Your task to perform on an android device: Search for the best gaming mouses on Amazon. Image 0: 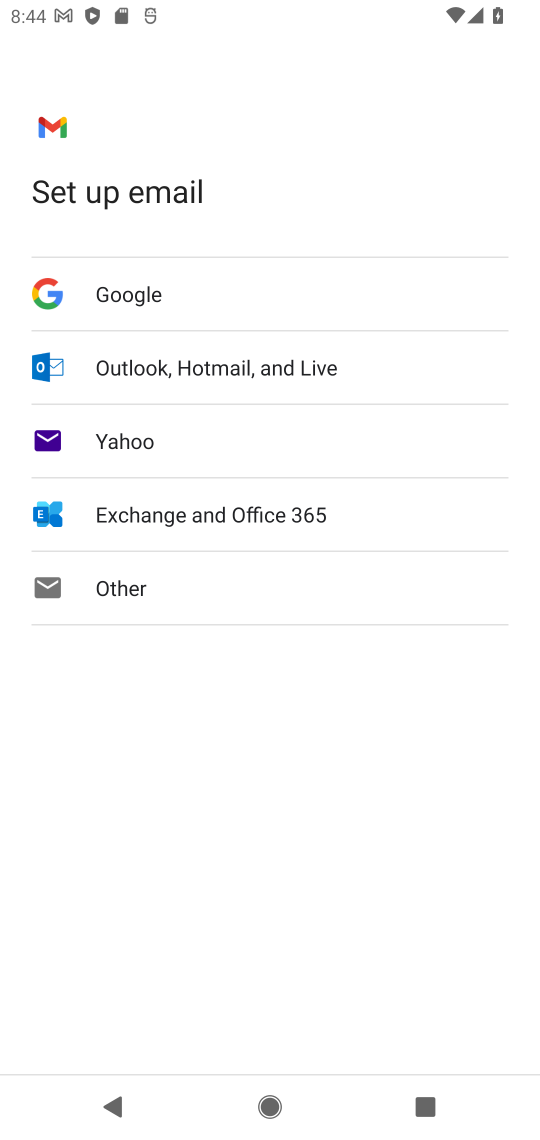
Step 0: press home button
Your task to perform on an android device: Search for the best gaming mouses on Amazon. Image 1: 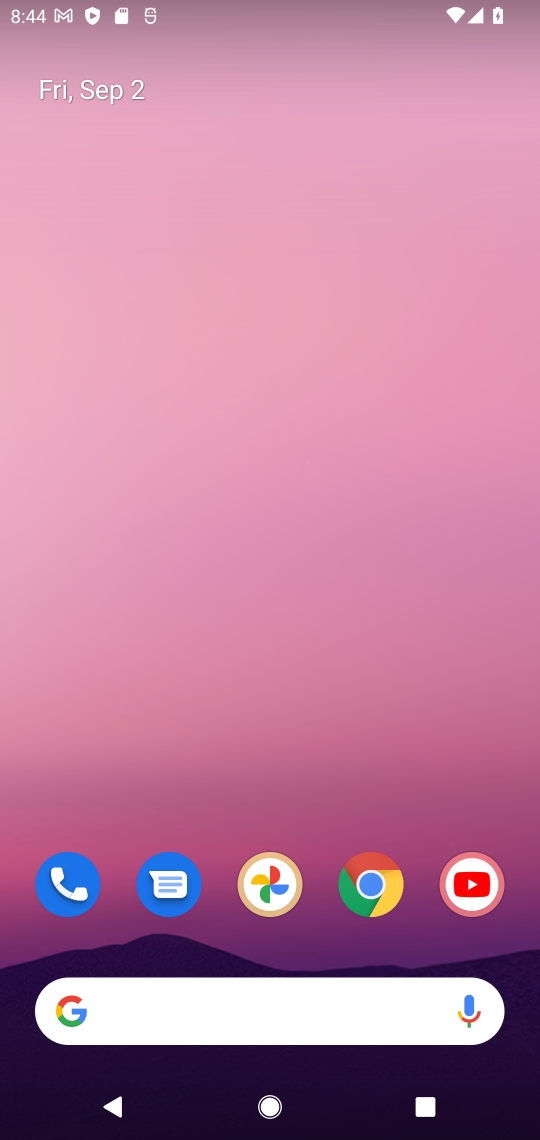
Step 1: click (367, 889)
Your task to perform on an android device: Search for the best gaming mouses on Amazon. Image 2: 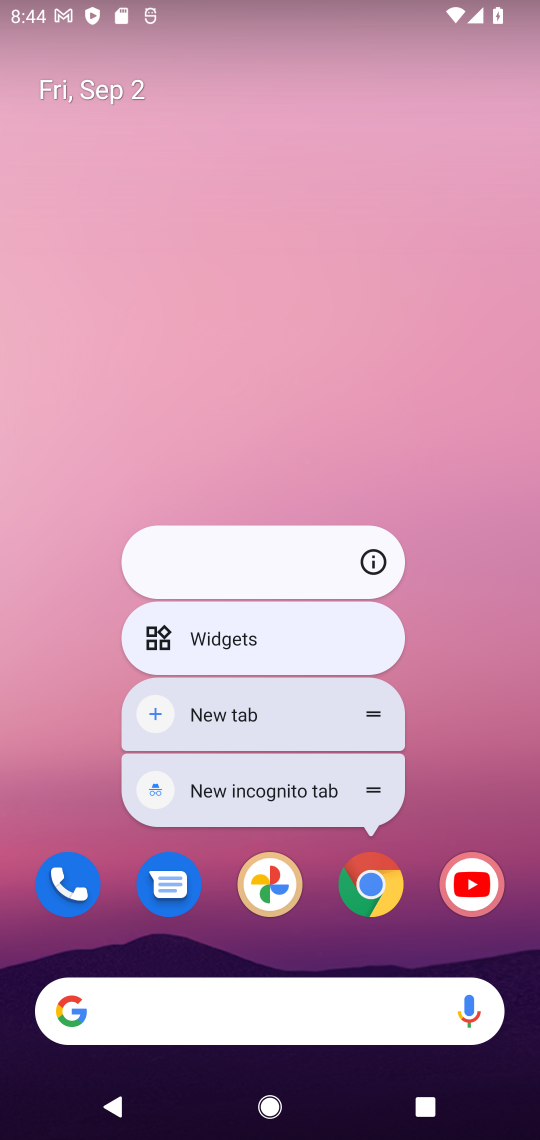
Step 2: click (374, 886)
Your task to perform on an android device: Search for the best gaming mouses on Amazon. Image 3: 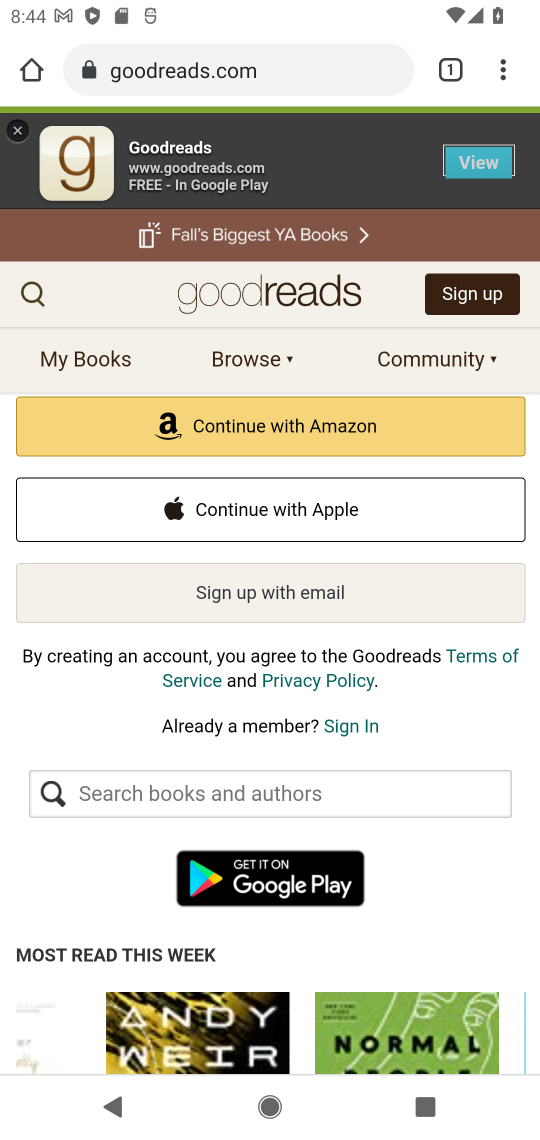
Step 3: click (320, 76)
Your task to perform on an android device: Search for the best gaming mouses on Amazon. Image 4: 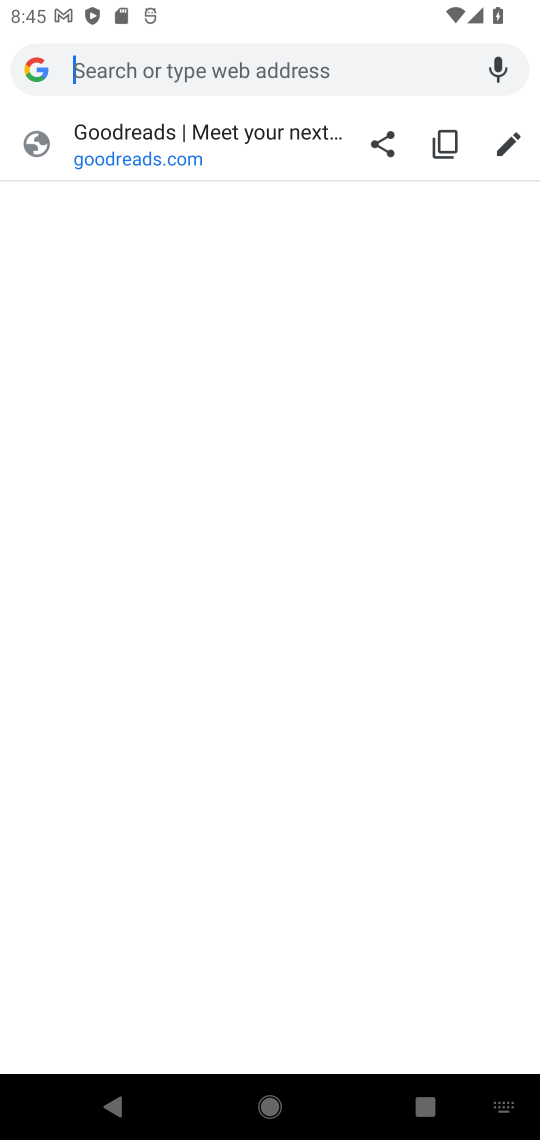
Step 4: type "amazon"
Your task to perform on an android device: Search for the best gaming mouses on Amazon. Image 5: 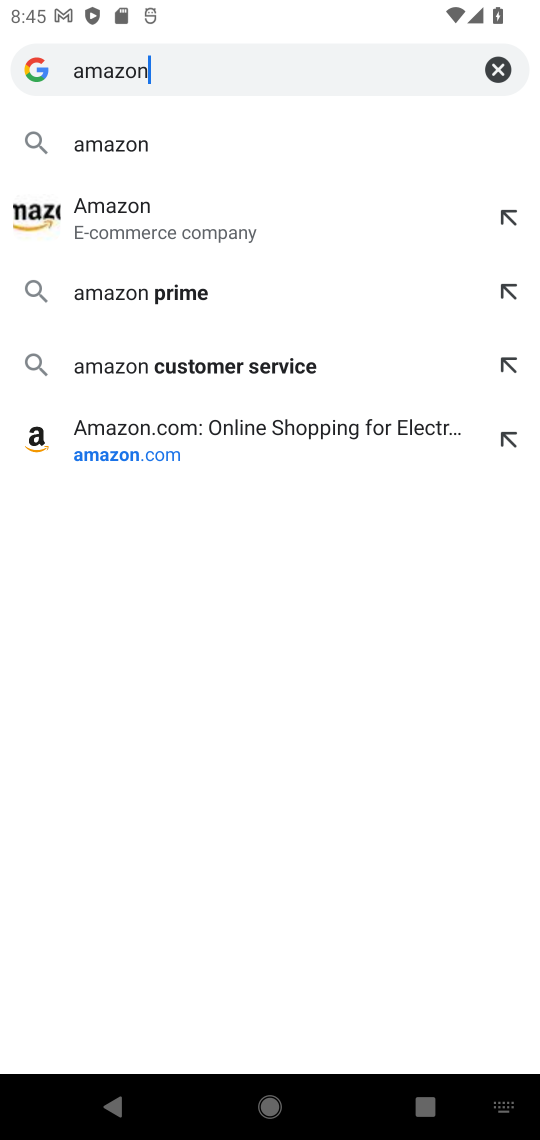
Step 5: click (146, 213)
Your task to perform on an android device: Search for the best gaming mouses on Amazon. Image 6: 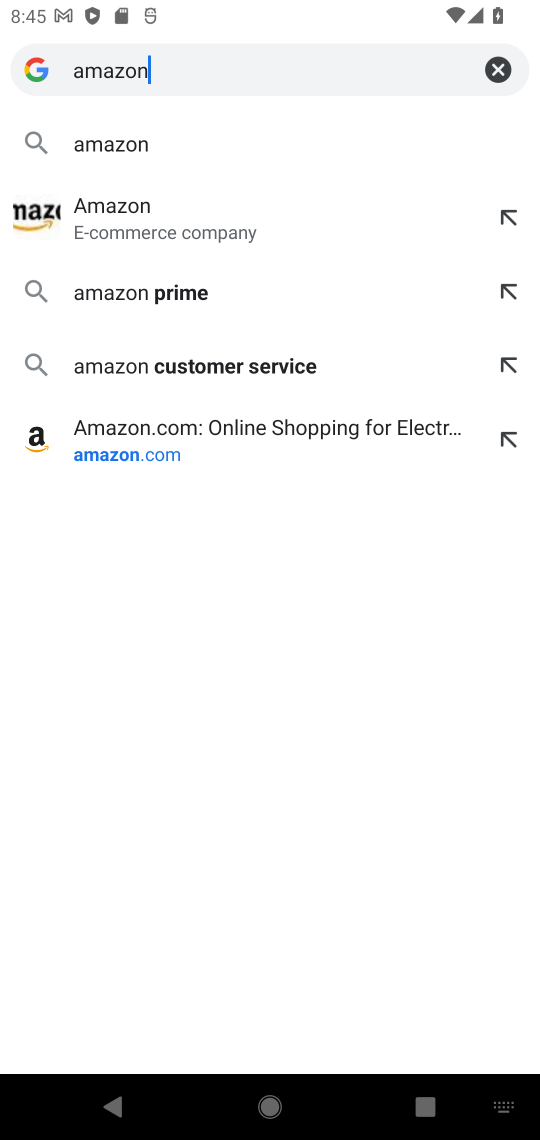
Step 6: click (128, 226)
Your task to perform on an android device: Search for the best gaming mouses on Amazon. Image 7: 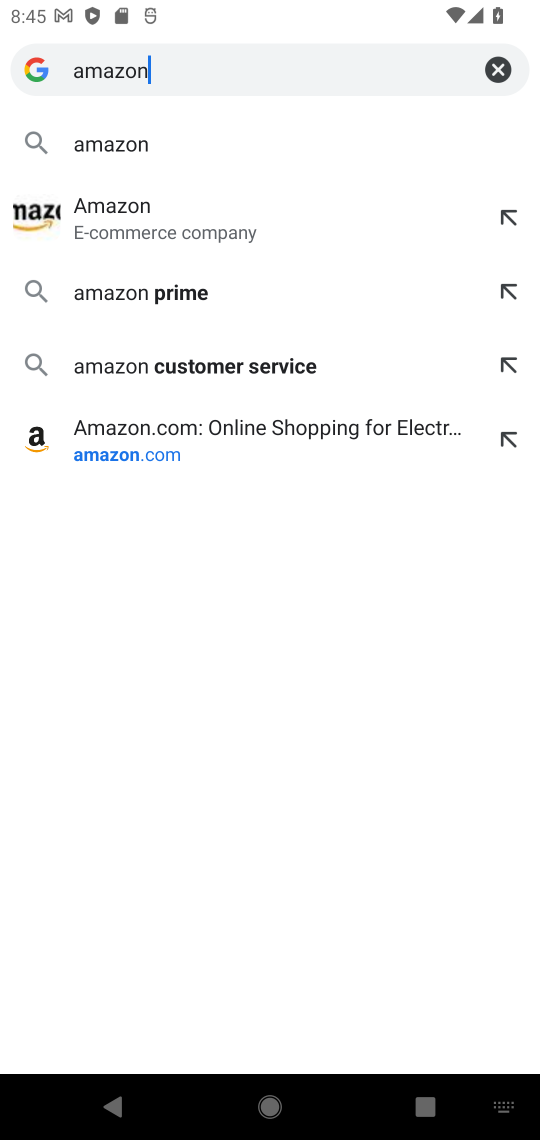
Step 7: click (75, 220)
Your task to perform on an android device: Search for the best gaming mouses on Amazon. Image 8: 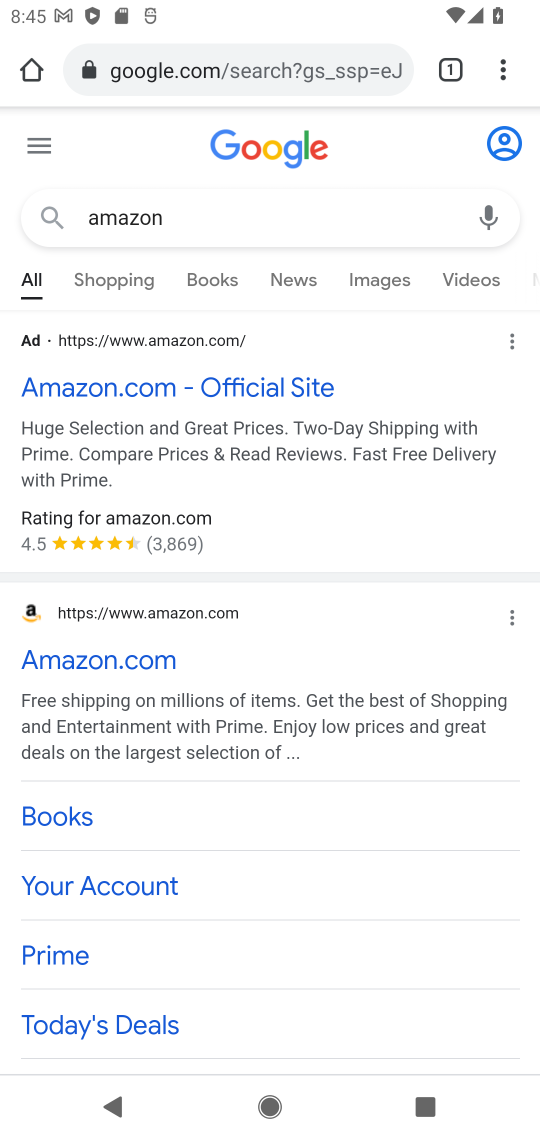
Step 8: click (232, 735)
Your task to perform on an android device: Search for the best gaming mouses on Amazon. Image 9: 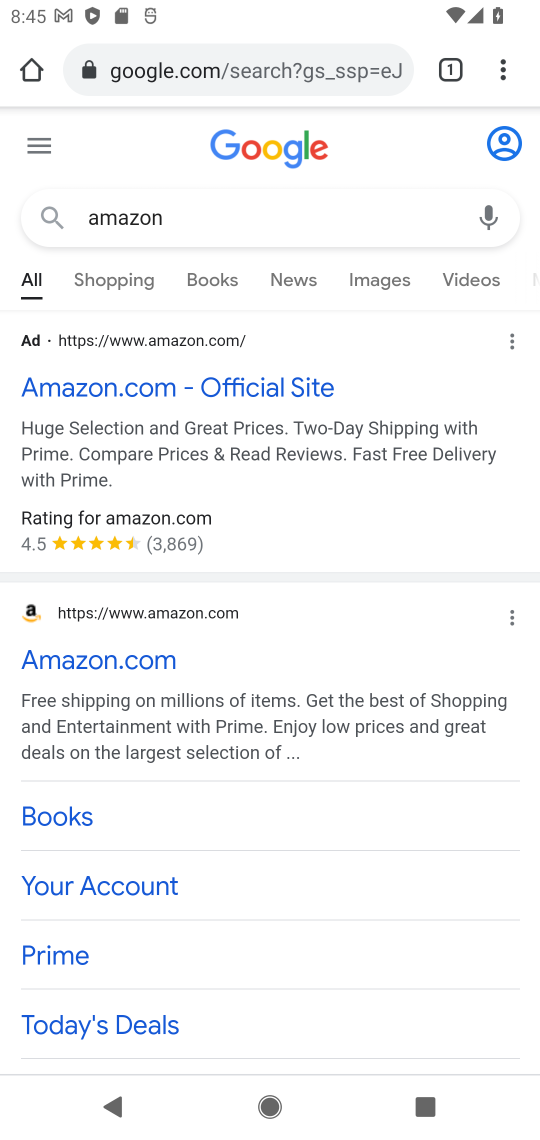
Step 9: click (115, 405)
Your task to perform on an android device: Search for the best gaming mouses on Amazon. Image 10: 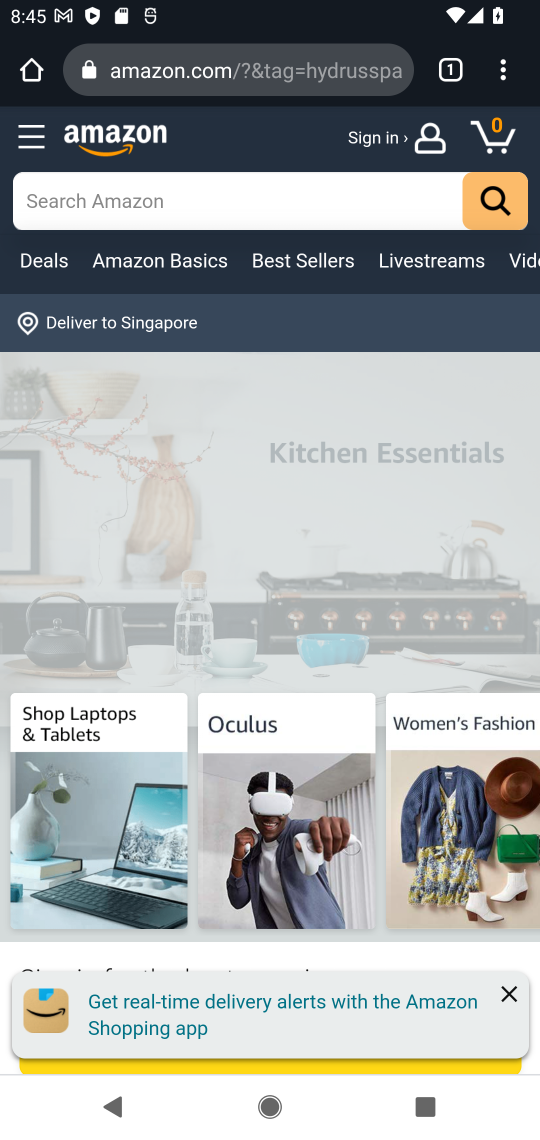
Step 10: click (207, 200)
Your task to perform on an android device: Search for the best gaming mouses on Amazon. Image 11: 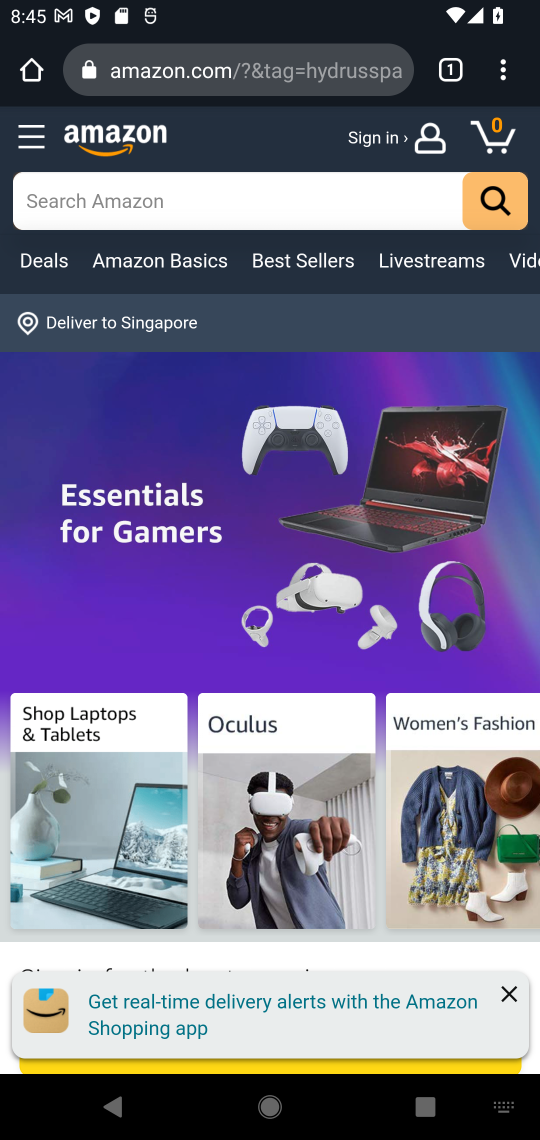
Step 11: type " best gaming mouses"
Your task to perform on an android device: Search for the best gaming mouses on Amazon. Image 12: 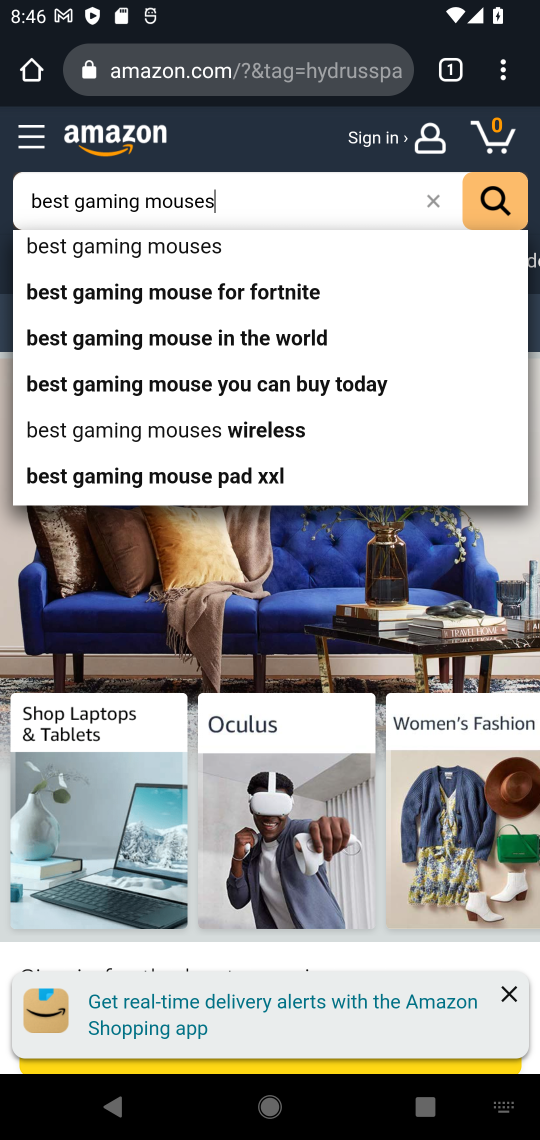
Step 12: click (195, 255)
Your task to perform on an android device: Search for the best gaming mouses on Amazon. Image 13: 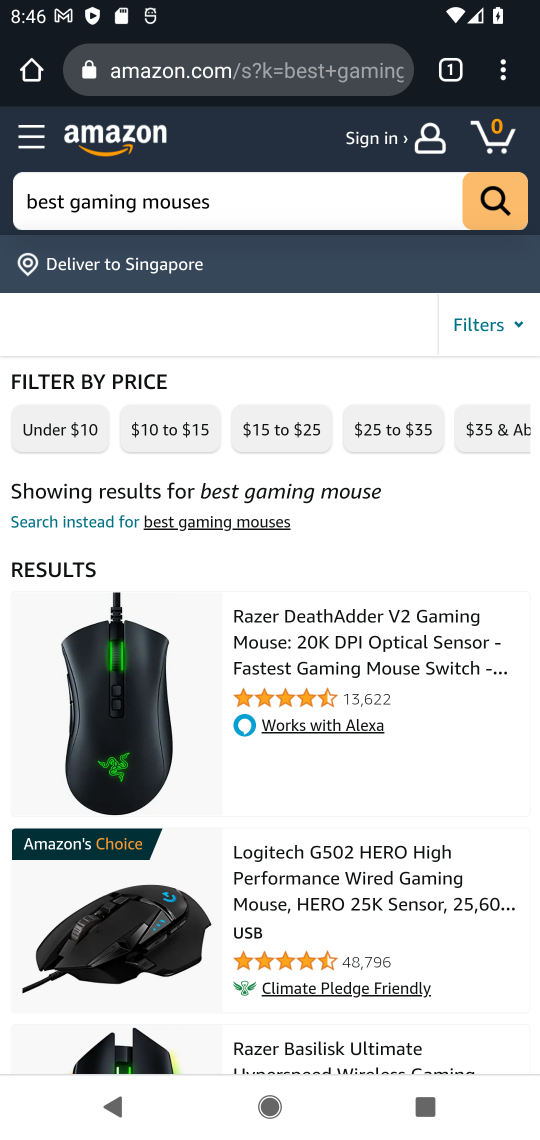
Step 13: click (491, 202)
Your task to perform on an android device: Search for the best gaming mouses on Amazon. Image 14: 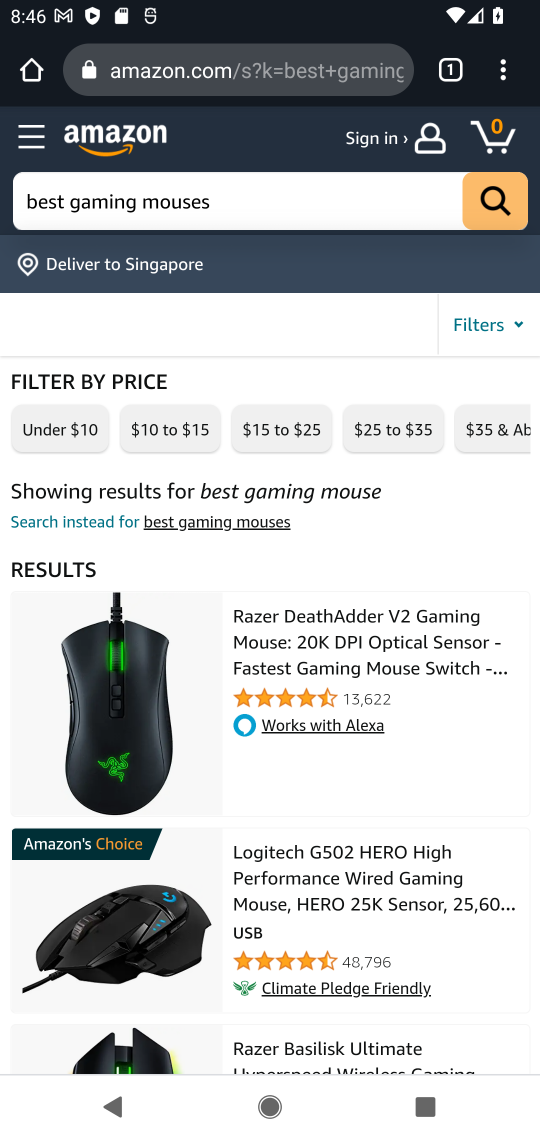
Step 14: task complete